Your task to perform on an android device: toggle improve location accuracy Image 0: 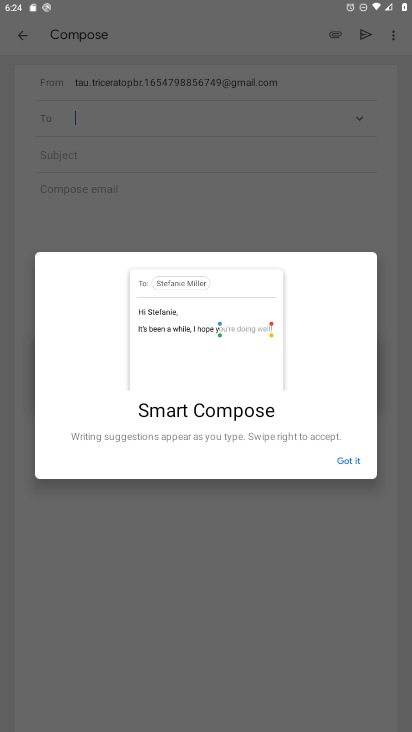
Step 0: press home button
Your task to perform on an android device: toggle improve location accuracy Image 1: 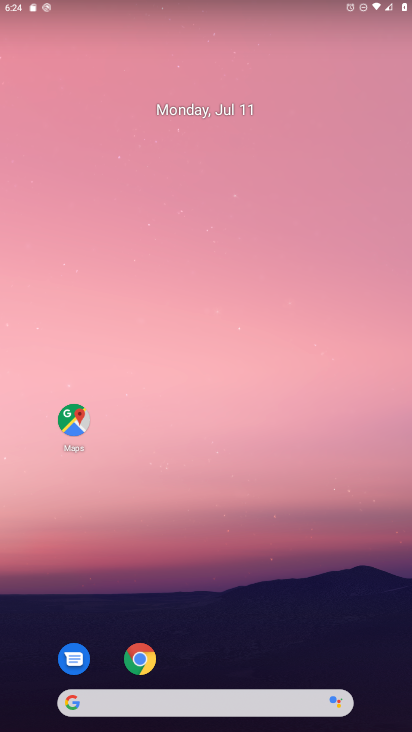
Step 1: drag from (395, 656) to (361, 185)
Your task to perform on an android device: toggle improve location accuracy Image 2: 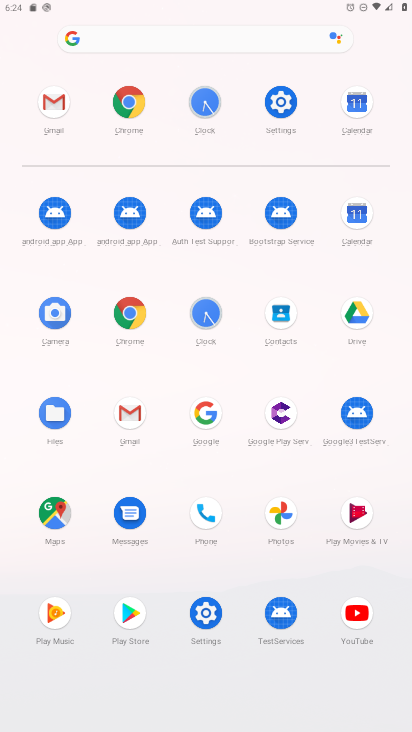
Step 2: click (205, 616)
Your task to perform on an android device: toggle improve location accuracy Image 3: 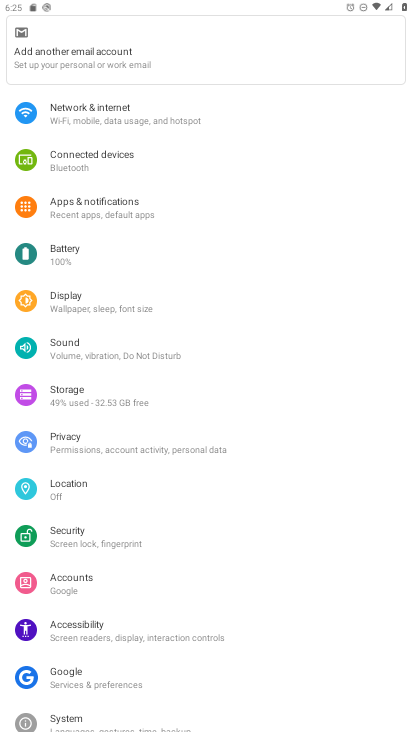
Step 3: click (76, 479)
Your task to perform on an android device: toggle improve location accuracy Image 4: 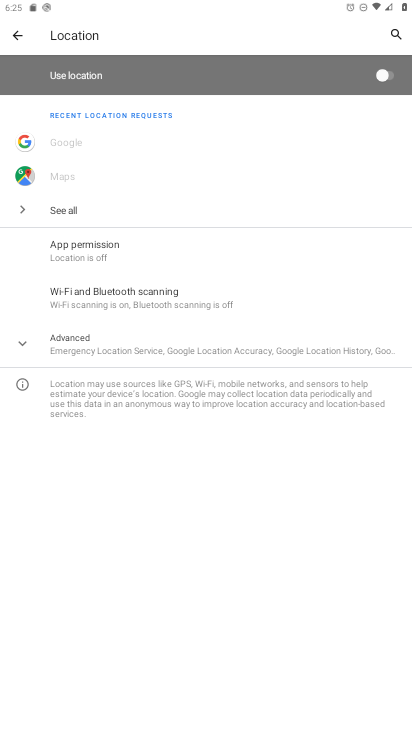
Step 4: click (36, 341)
Your task to perform on an android device: toggle improve location accuracy Image 5: 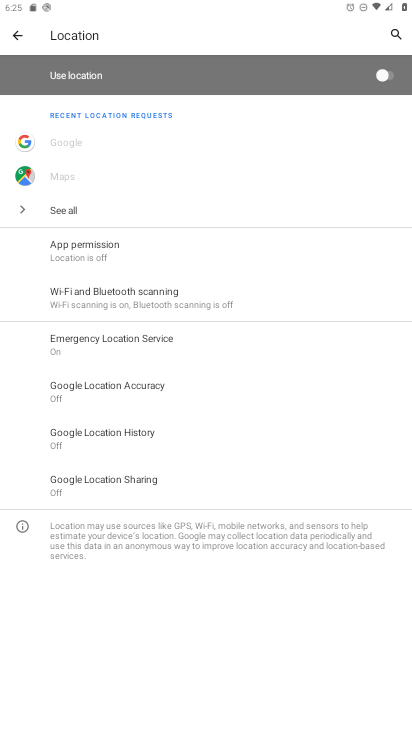
Step 5: click (105, 388)
Your task to perform on an android device: toggle improve location accuracy Image 6: 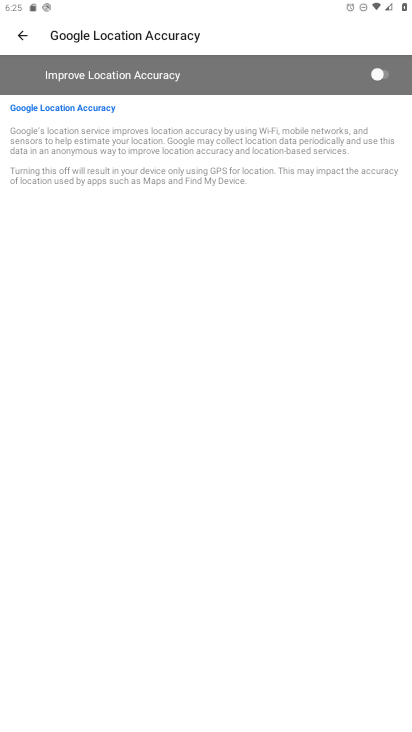
Step 6: click (385, 72)
Your task to perform on an android device: toggle improve location accuracy Image 7: 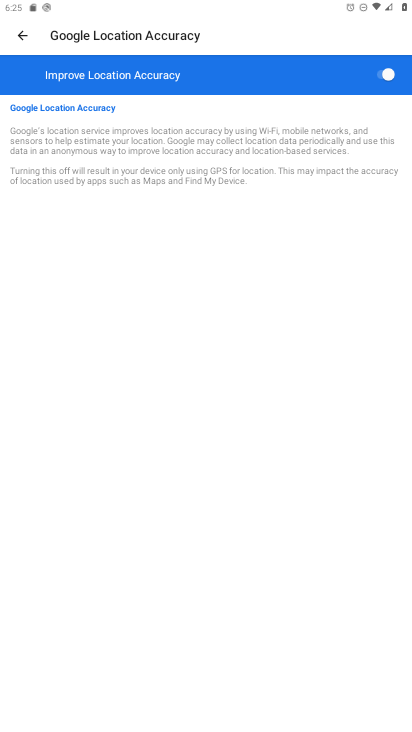
Step 7: task complete